Your task to perform on an android device: What's the weather today? Image 0: 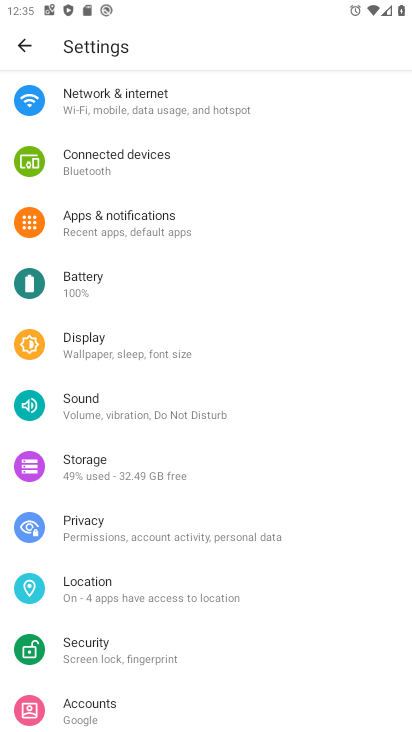
Step 0: press home button
Your task to perform on an android device: What's the weather today? Image 1: 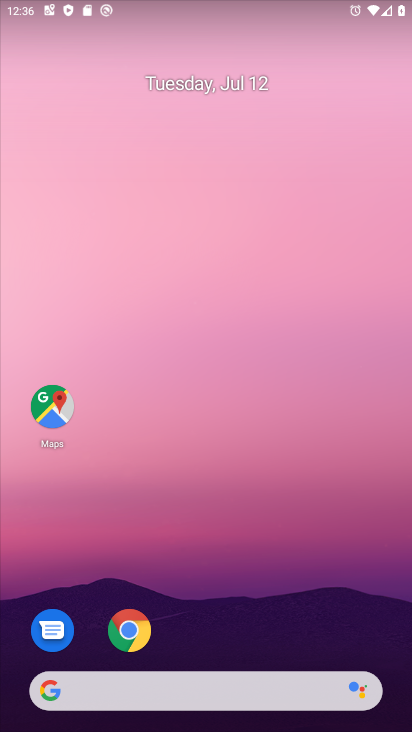
Step 1: drag from (211, 695) to (268, 155)
Your task to perform on an android device: What's the weather today? Image 2: 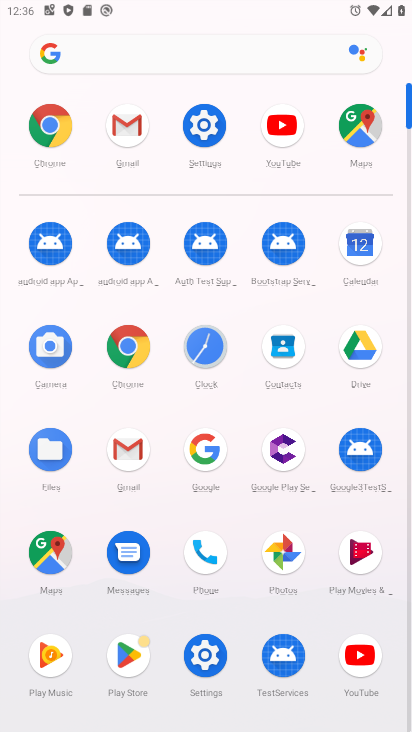
Step 2: click (203, 448)
Your task to perform on an android device: What's the weather today? Image 3: 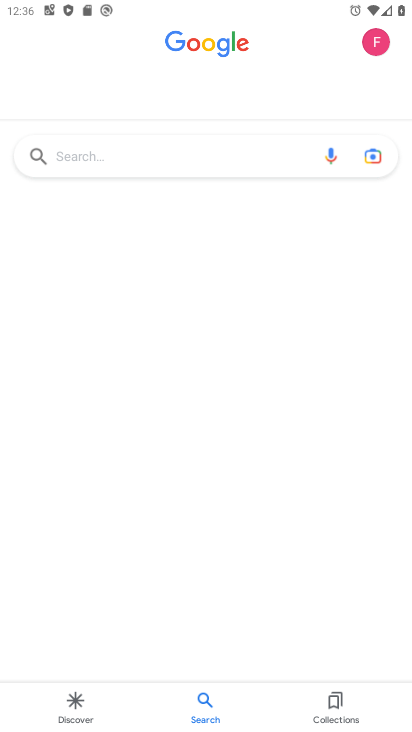
Step 3: click (197, 161)
Your task to perform on an android device: What's the weather today? Image 4: 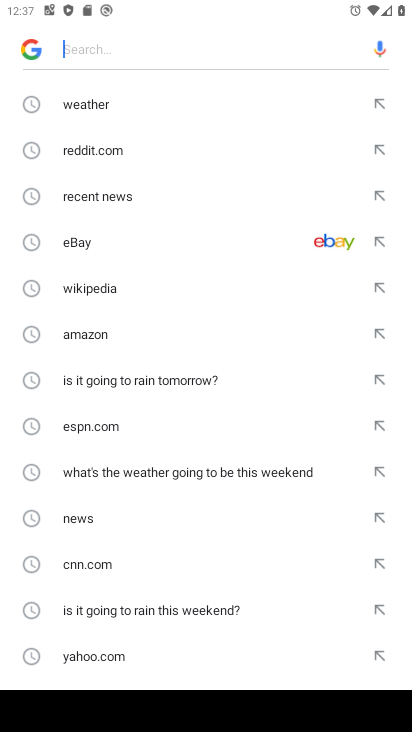
Step 4: type "What's the weather today?"
Your task to perform on an android device: What's the weather today? Image 5: 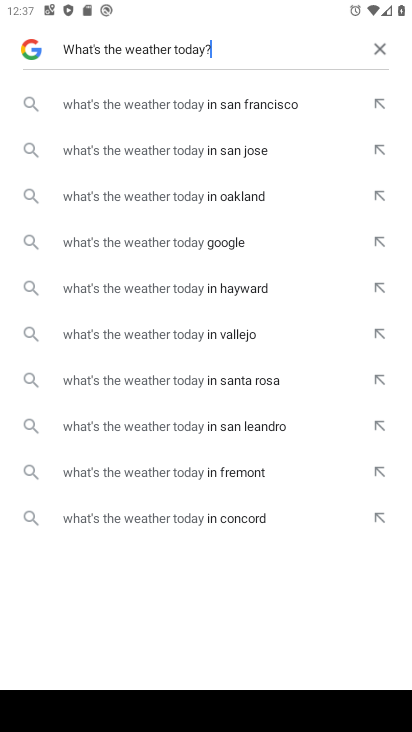
Step 5: click (210, 105)
Your task to perform on an android device: What's the weather today? Image 6: 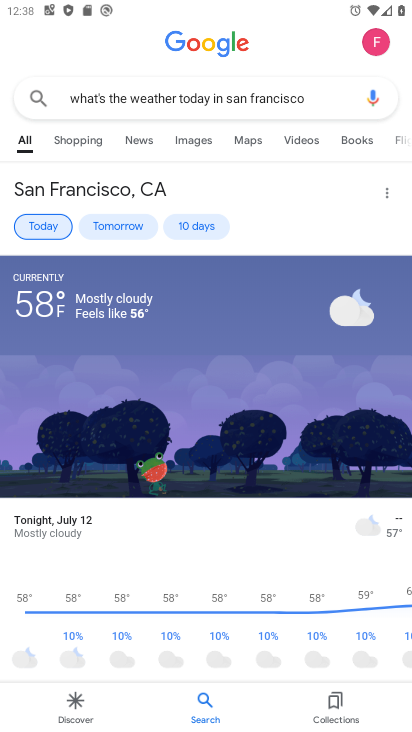
Step 6: task complete